Your task to perform on an android device: Go to Google maps Image 0: 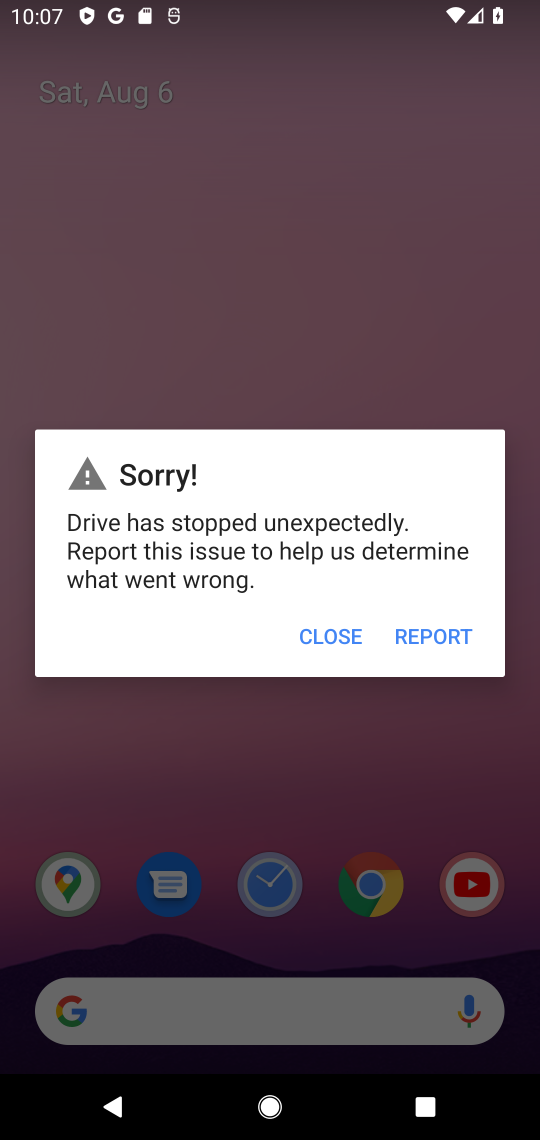
Step 0: click (304, 638)
Your task to perform on an android device: Go to Google maps Image 1: 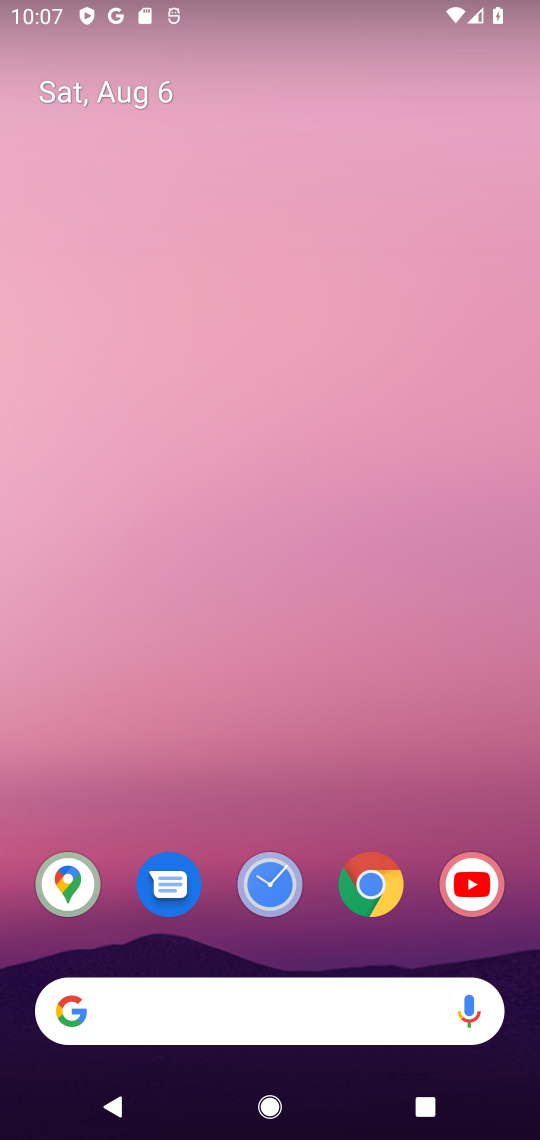
Step 1: click (71, 881)
Your task to perform on an android device: Go to Google maps Image 2: 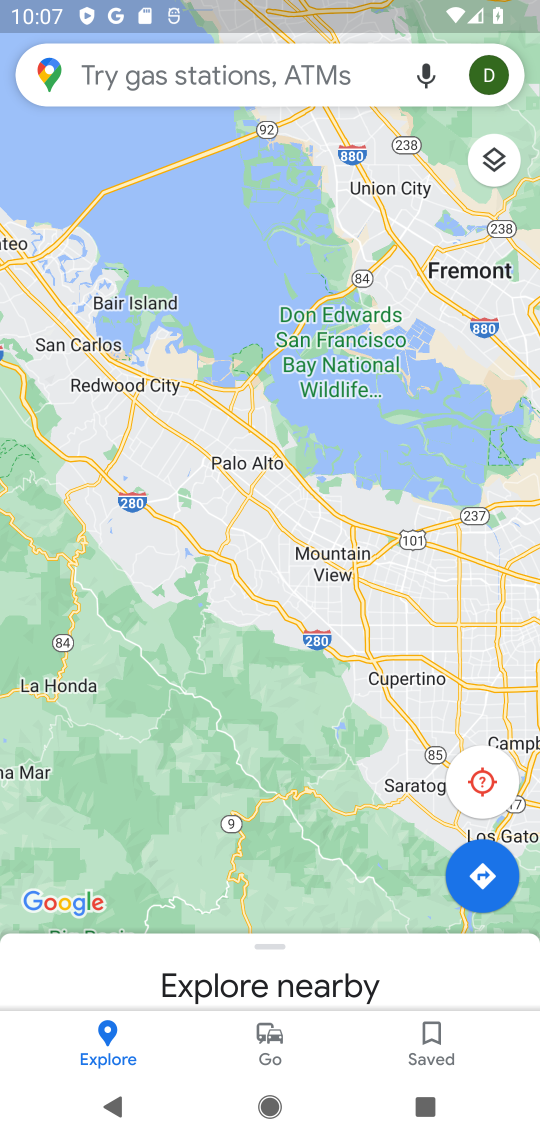
Step 2: task complete